Your task to perform on an android device: What's the weather today? Image 0: 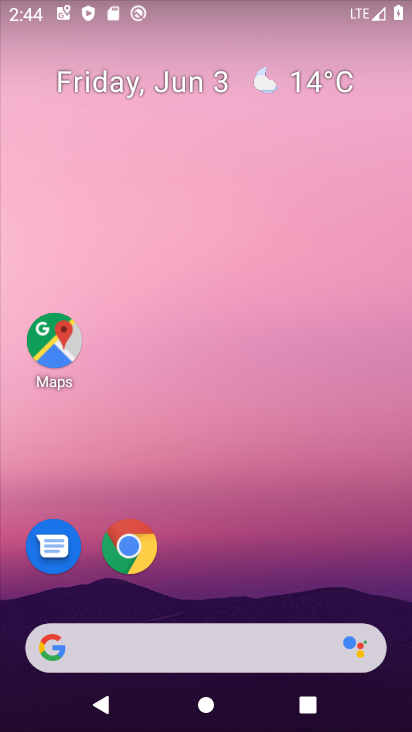
Step 0: click (297, 84)
Your task to perform on an android device: What's the weather today? Image 1: 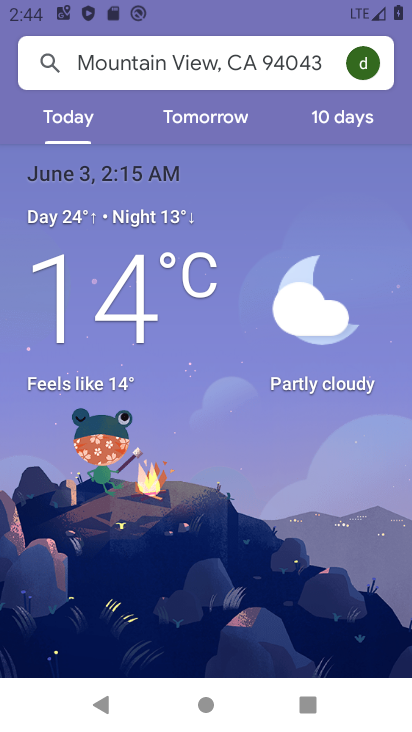
Step 1: task complete